Your task to perform on an android device: turn on the 24-hour format for clock Image 0: 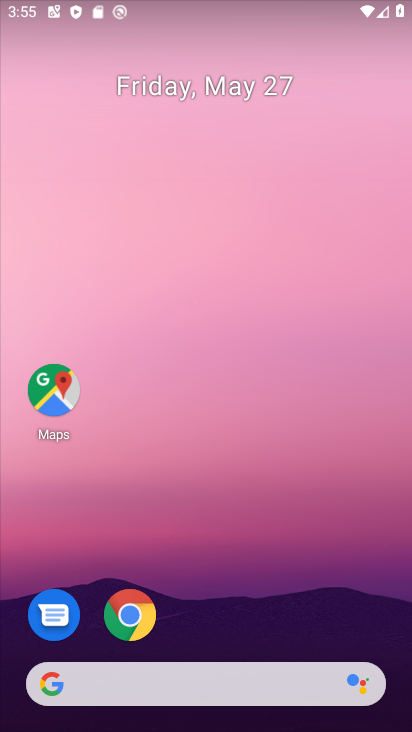
Step 0: drag from (182, 645) to (328, 138)
Your task to perform on an android device: turn on the 24-hour format for clock Image 1: 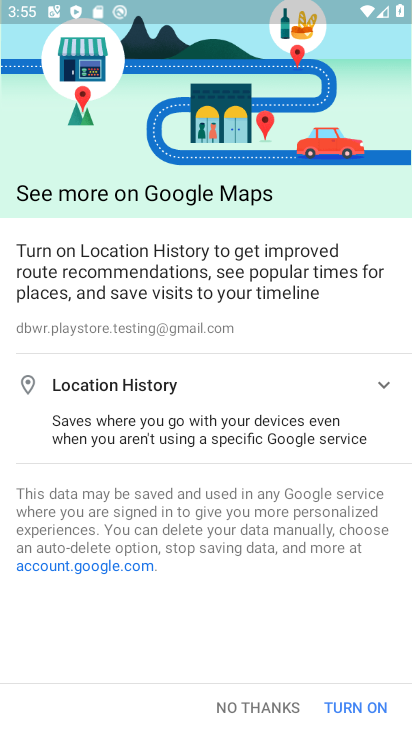
Step 1: press home button
Your task to perform on an android device: turn on the 24-hour format for clock Image 2: 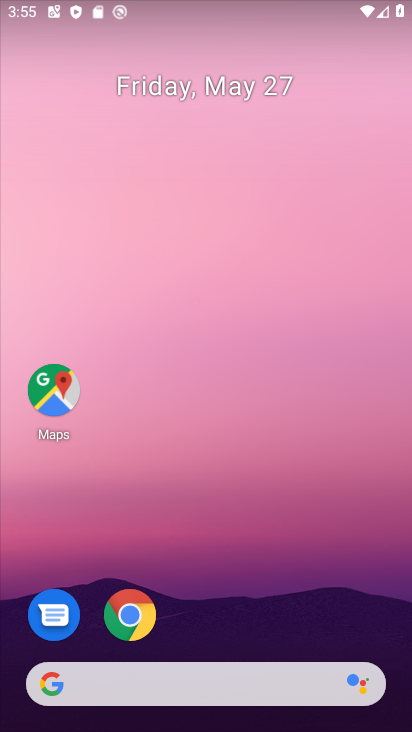
Step 2: drag from (240, 641) to (357, 159)
Your task to perform on an android device: turn on the 24-hour format for clock Image 3: 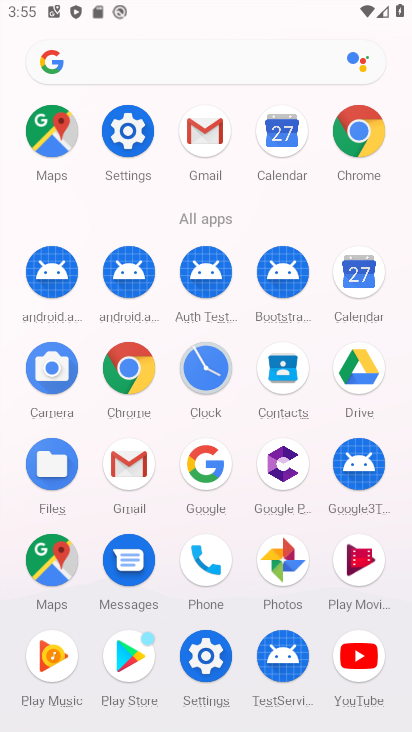
Step 3: click (216, 384)
Your task to perform on an android device: turn on the 24-hour format for clock Image 4: 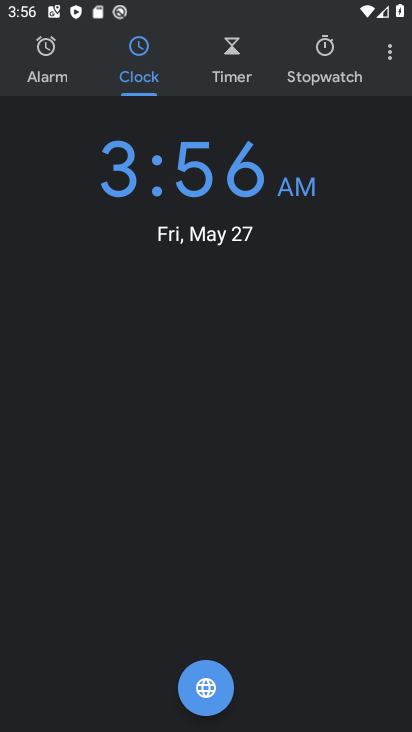
Step 4: click (402, 59)
Your task to perform on an android device: turn on the 24-hour format for clock Image 5: 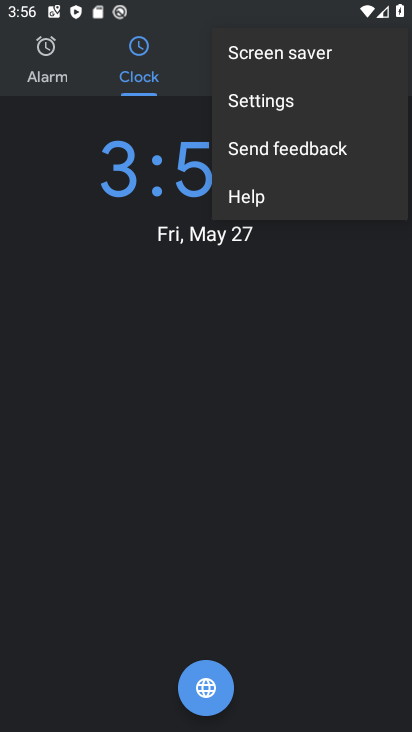
Step 5: click (345, 84)
Your task to perform on an android device: turn on the 24-hour format for clock Image 6: 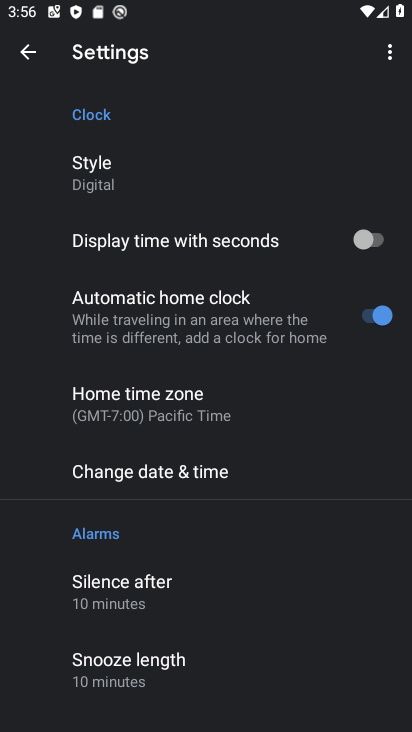
Step 6: click (231, 469)
Your task to perform on an android device: turn on the 24-hour format for clock Image 7: 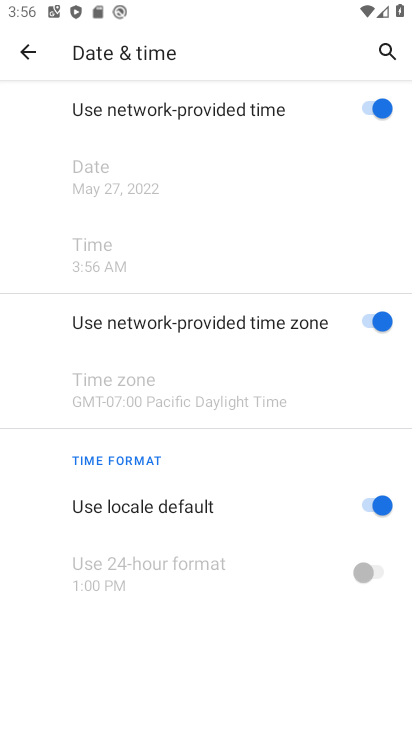
Step 7: click (361, 521)
Your task to perform on an android device: turn on the 24-hour format for clock Image 8: 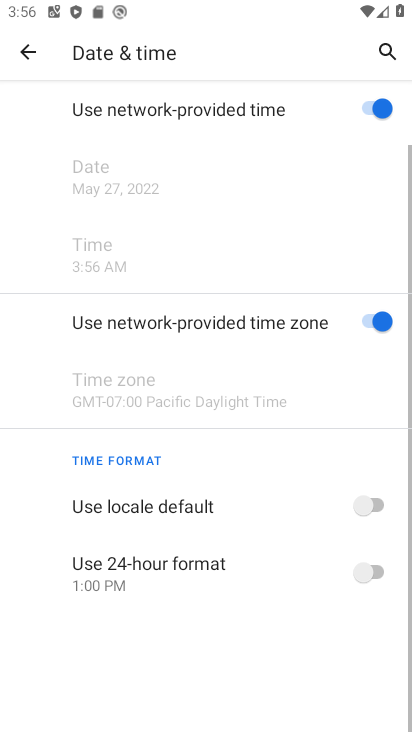
Step 8: click (366, 565)
Your task to perform on an android device: turn on the 24-hour format for clock Image 9: 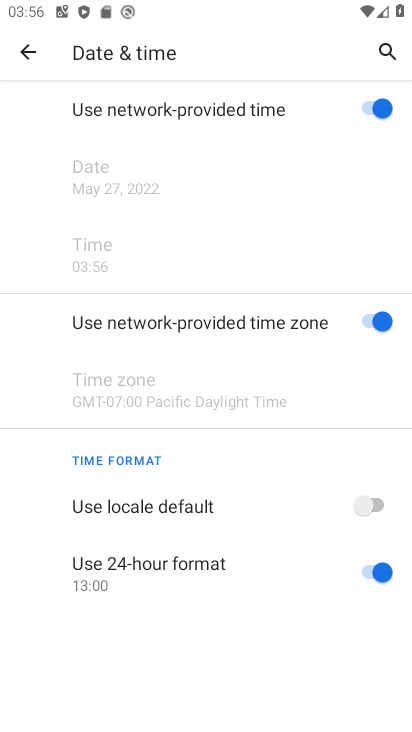
Step 9: task complete